Your task to perform on an android device: turn smart compose on in the gmail app Image 0: 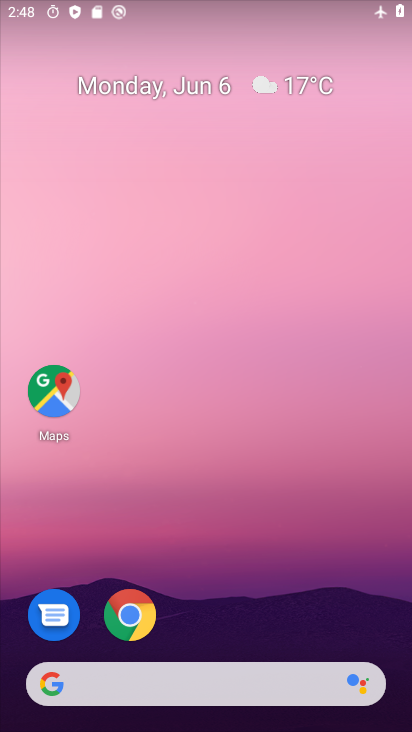
Step 0: drag from (257, 631) to (283, 199)
Your task to perform on an android device: turn smart compose on in the gmail app Image 1: 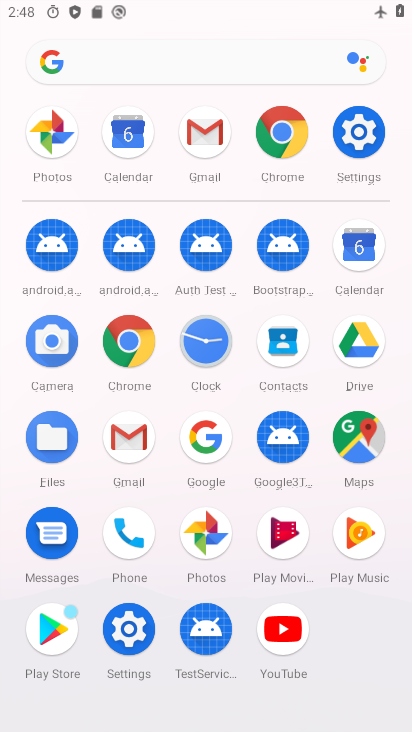
Step 1: click (129, 436)
Your task to perform on an android device: turn smart compose on in the gmail app Image 2: 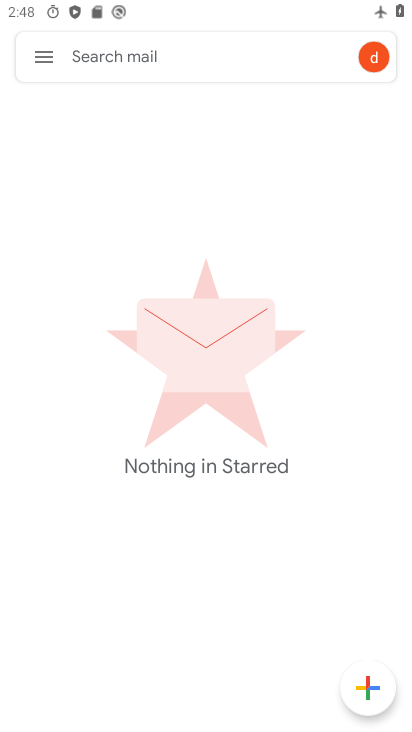
Step 2: click (32, 48)
Your task to perform on an android device: turn smart compose on in the gmail app Image 3: 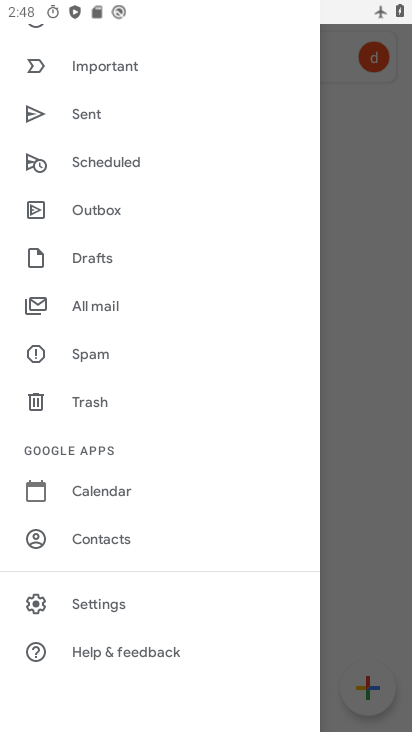
Step 3: click (108, 600)
Your task to perform on an android device: turn smart compose on in the gmail app Image 4: 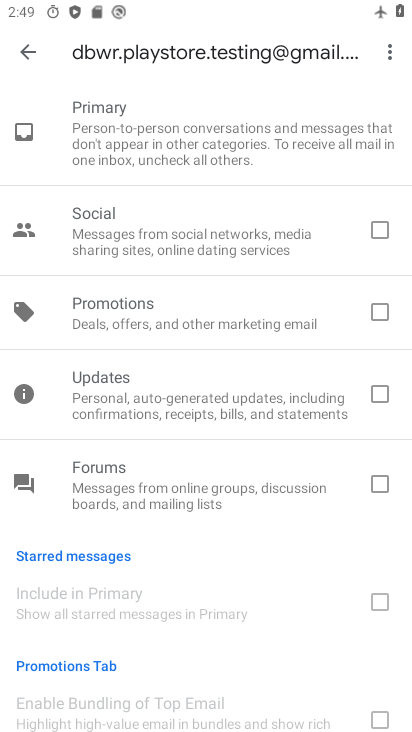
Step 4: click (33, 53)
Your task to perform on an android device: turn smart compose on in the gmail app Image 5: 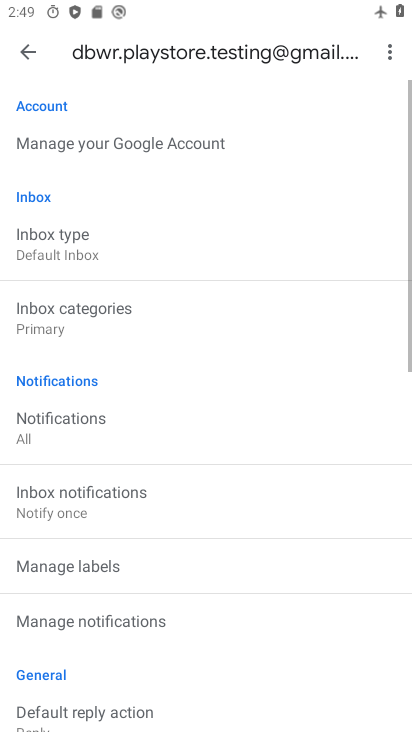
Step 5: task complete